Your task to perform on an android device: turn vacation reply on in the gmail app Image 0: 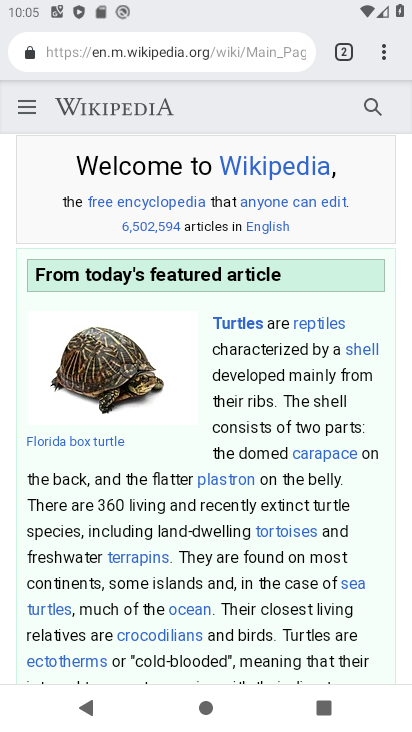
Step 0: press home button
Your task to perform on an android device: turn vacation reply on in the gmail app Image 1: 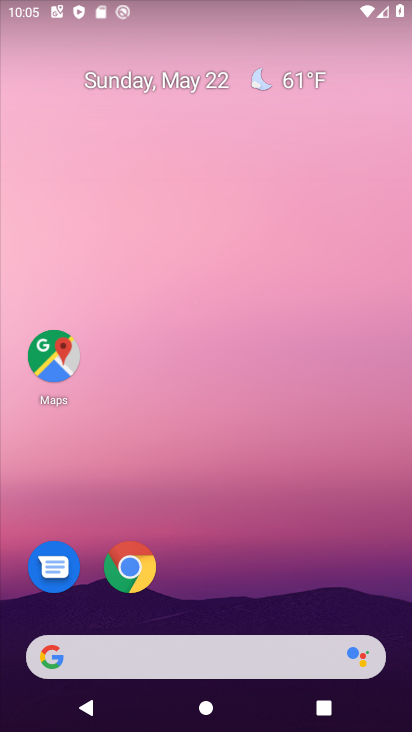
Step 1: drag from (224, 638) to (137, 19)
Your task to perform on an android device: turn vacation reply on in the gmail app Image 2: 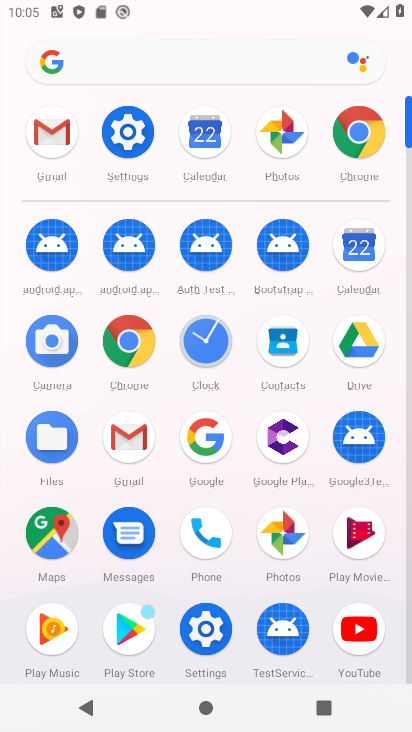
Step 2: click (120, 461)
Your task to perform on an android device: turn vacation reply on in the gmail app Image 3: 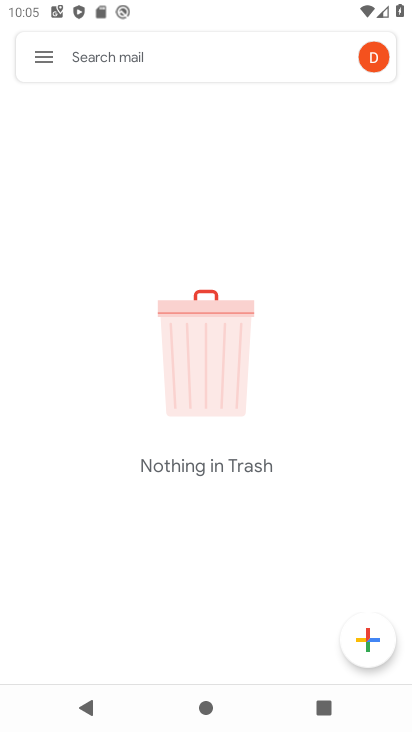
Step 3: click (60, 42)
Your task to perform on an android device: turn vacation reply on in the gmail app Image 4: 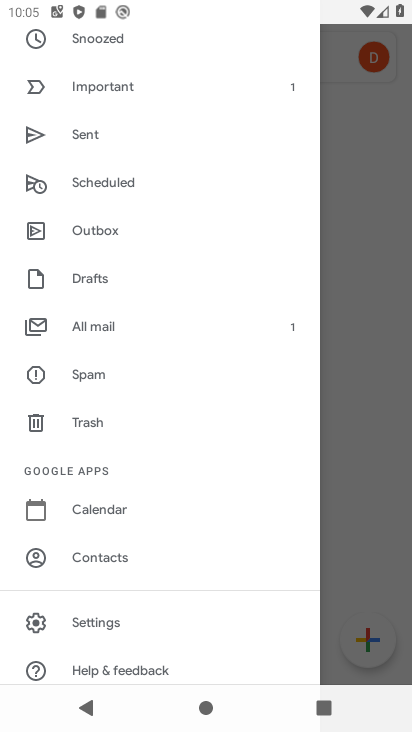
Step 4: click (95, 615)
Your task to perform on an android device: turn vacation reply on in the gmail app Image 5: 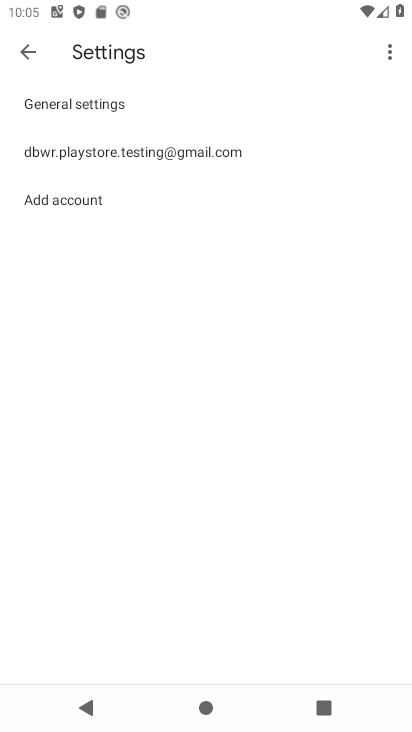
Step 5: click (63, 161)
Your task to perform on an android device: turn vacation reply on in the gmail app Image 6: 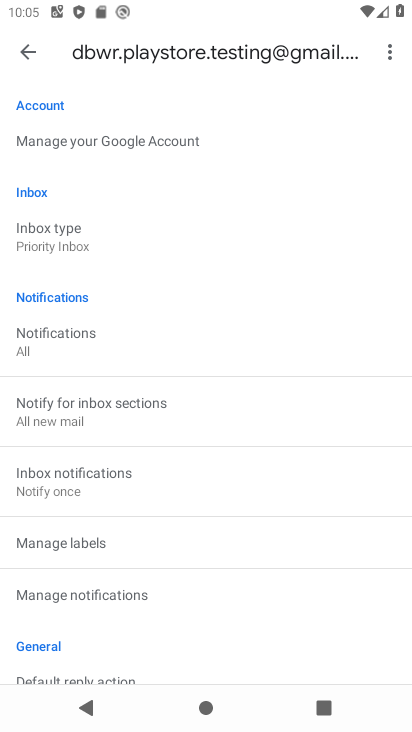
Step 6: drag from (68, 600) to (30, 95)
Your task to perform on an android device: turn vacation reply on in the gmail app Image 7: 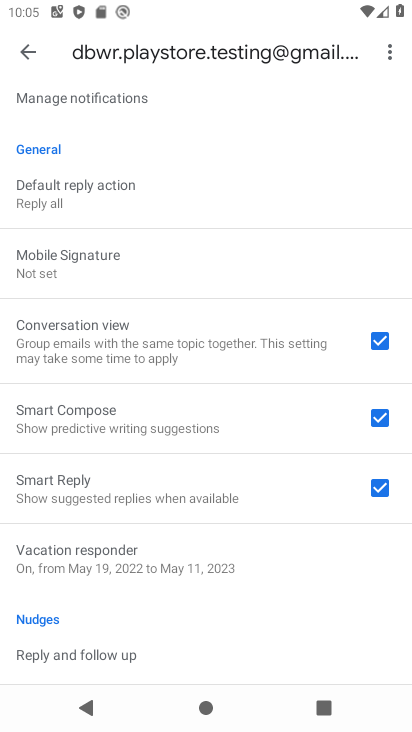
Step 7: click (135, 560)
Your task to perform on an android device: turn vacation reply on in the gmail app Image 8: 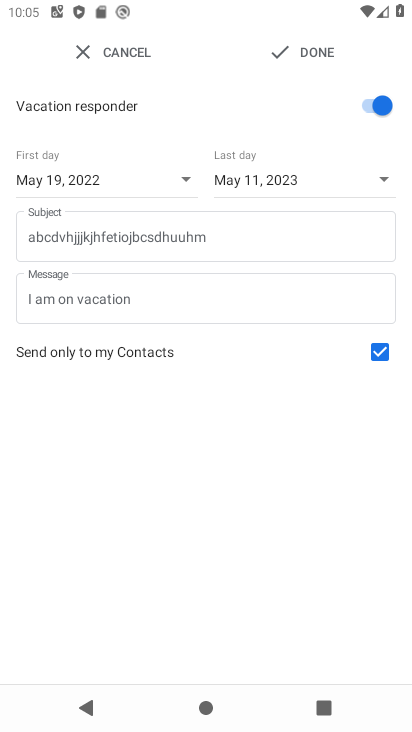
Step 8: click (295, 61)
Your task to perform on an android device: turn vacation reply on in the gmail app Image 9: 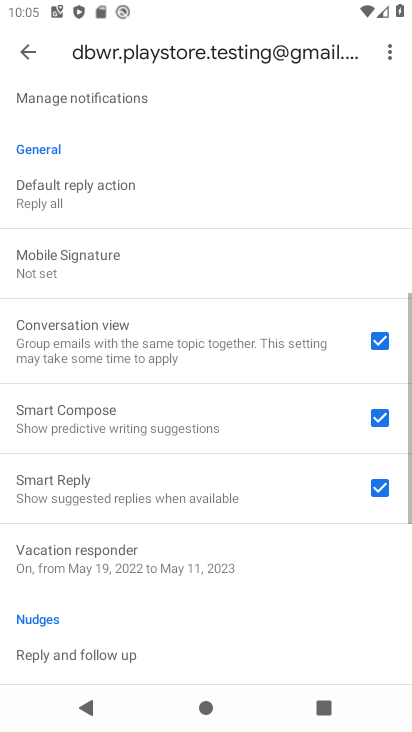
Step 9: task complete